Your task to perform on an android device: Check the weather Image 0: 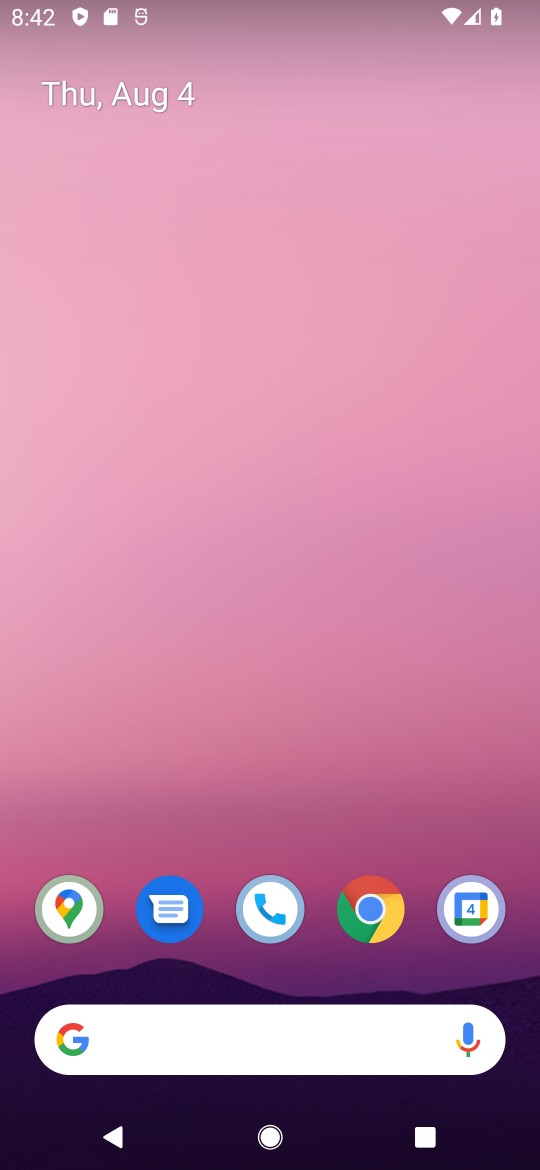
Step 0: press home button
Your task to perform on an android device: Check the weather Image 1: 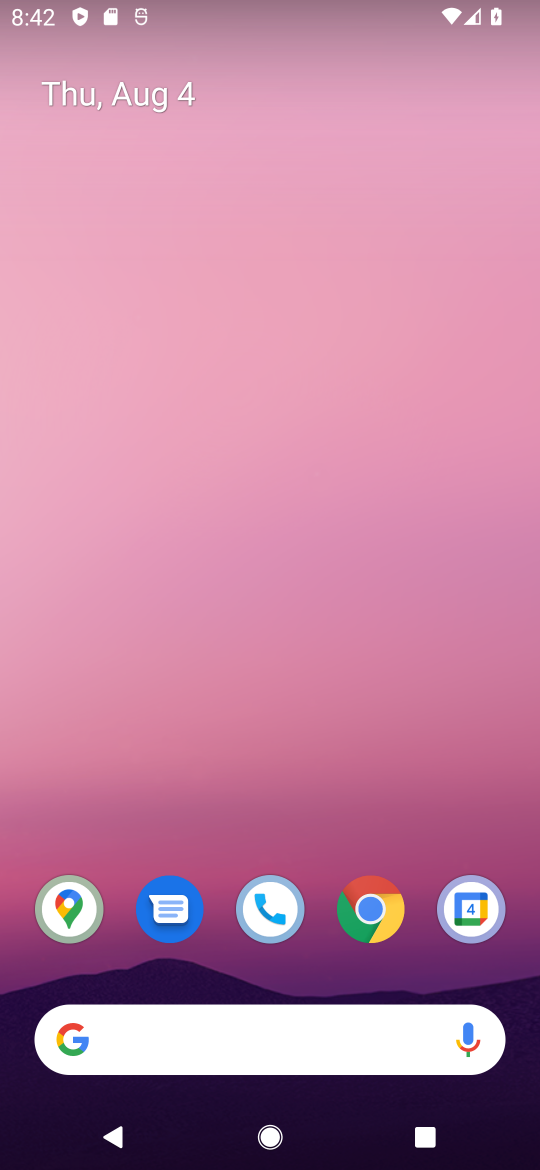
Step 1: click (194, 1037)
Your task to perform on an android device: Check the weather Image 2: 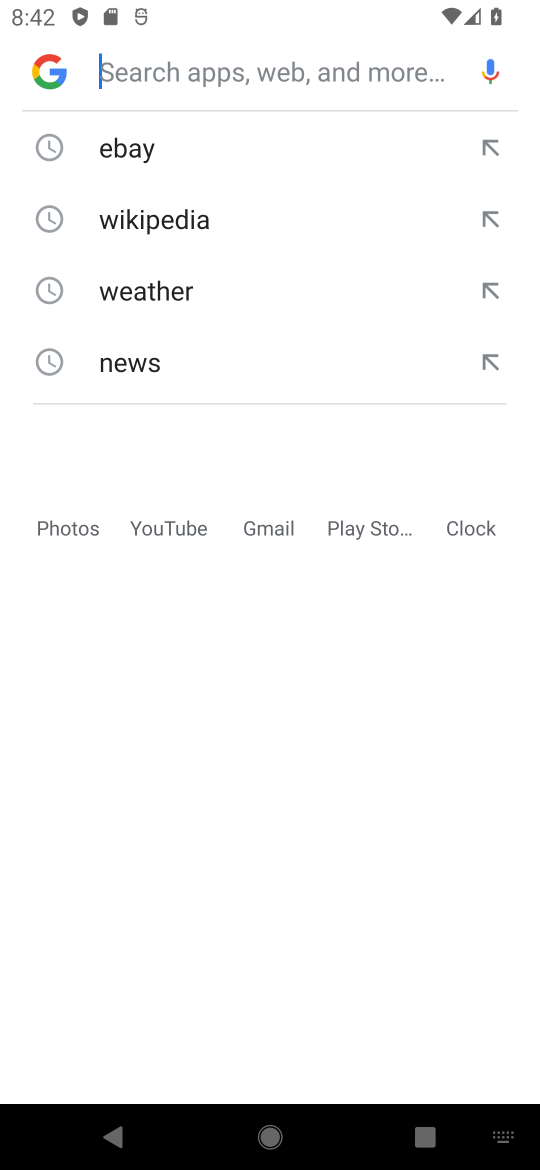
Step 2: click (192, 285)
Your task to perform on an android device: Check the weather Image 3: 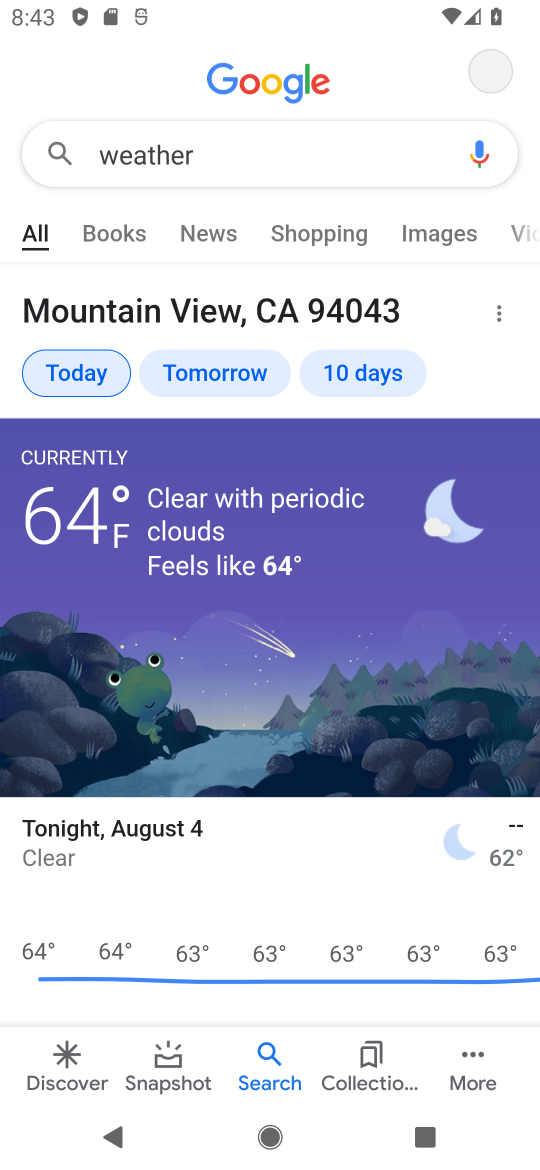
Step 3: task complete